Your task to perform on an android device: Toggle the flashlight Image 0: 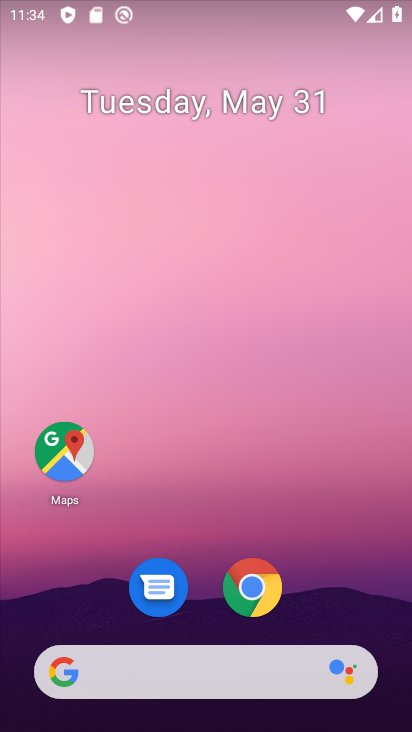
Step 0: drag from (329, 546) to (343, 55)
Your task to perform on an android device: Toggle the flashlight Image 1: 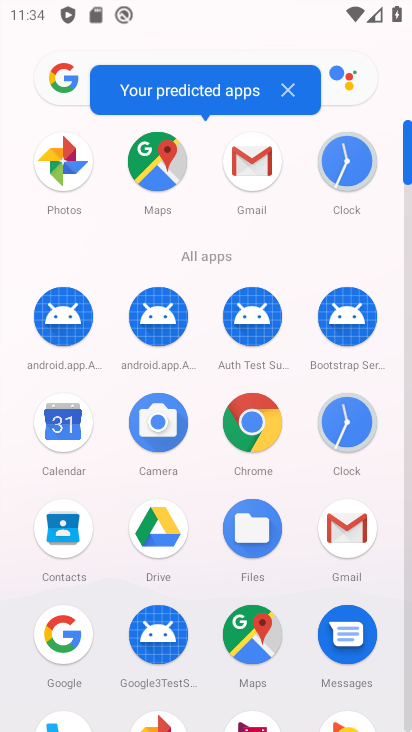
Step 1: drag from (335, 4) to (163, 586)
Your task to perform on an android device: Toggle the flashlight Image 2: 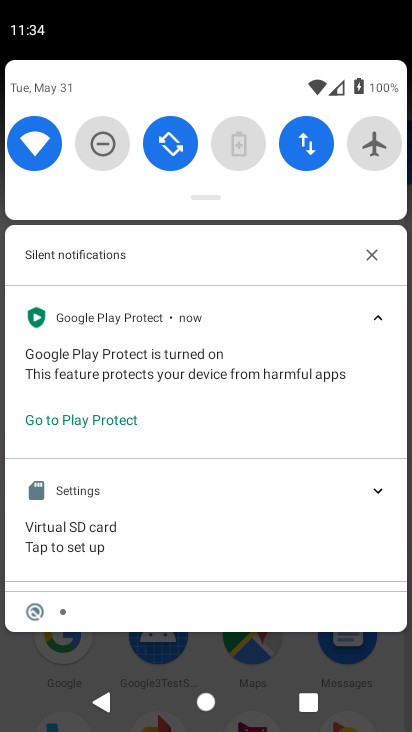
Step 2: drag from (213, 178) to (96, 398)
Your task to perform on an android device: Toggle the flashlight Image 3: 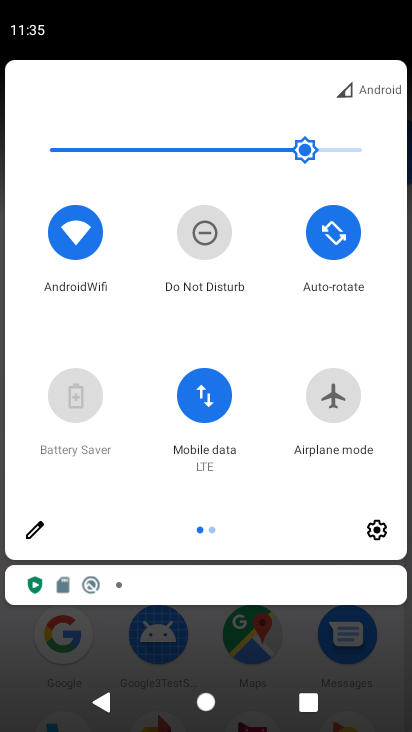
Step 3: drag from (346, 359) to (1, 299)
Your task to perform on an android device: Toggle the flashlight Image 4: 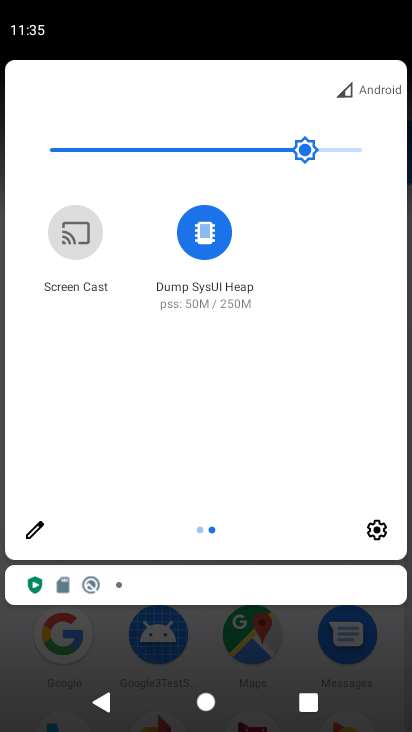
Step 4: click (29, 533)
Your task to perform on an android device: Toggle the flashlight Image 5: 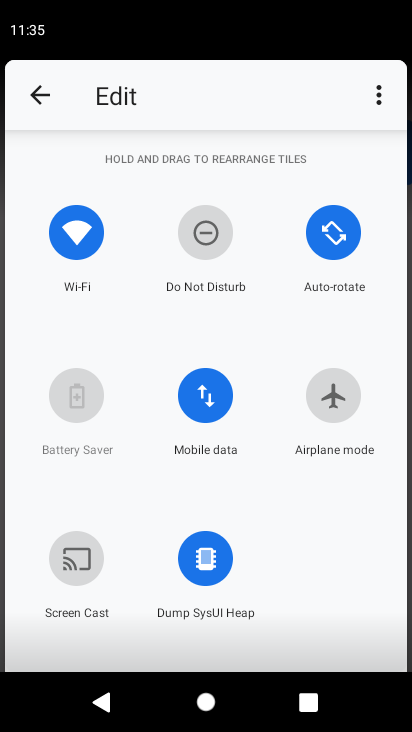
Step 5: task complete